Your task to perform on an android device: check out phone information Image 0: 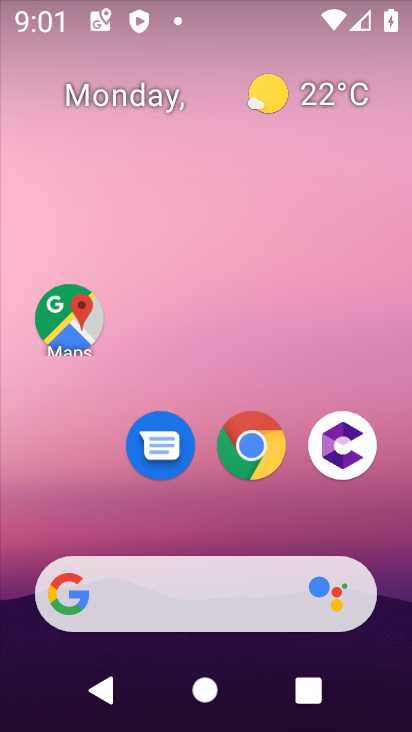
Step 0: drag from (288, 368) to (289, 28)
Your task to perform on an android device: check out phone information Image 1: 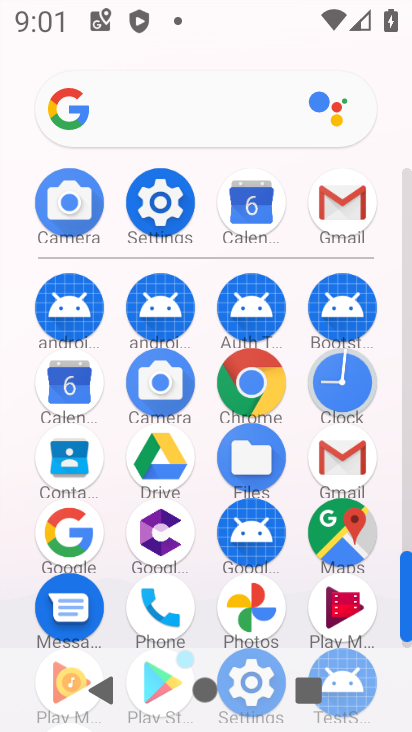
Step 1: click (170, 209)
Your task to perform on an android device: check out phone information Image 2: 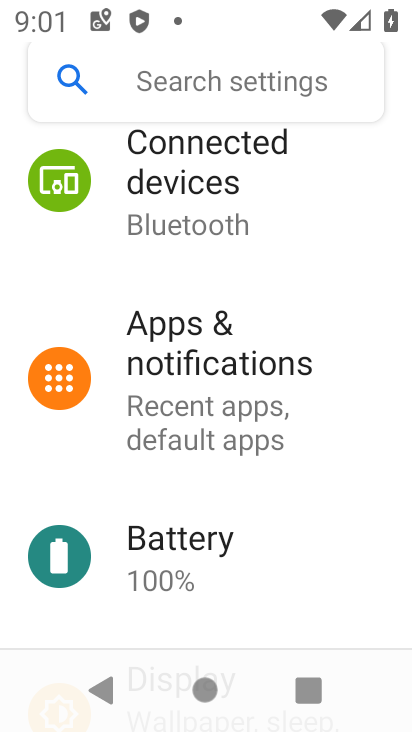
Step 2: drag from (50, 616) to (120, 125)
Your task to perform on an android device: check out phone information Image 3: 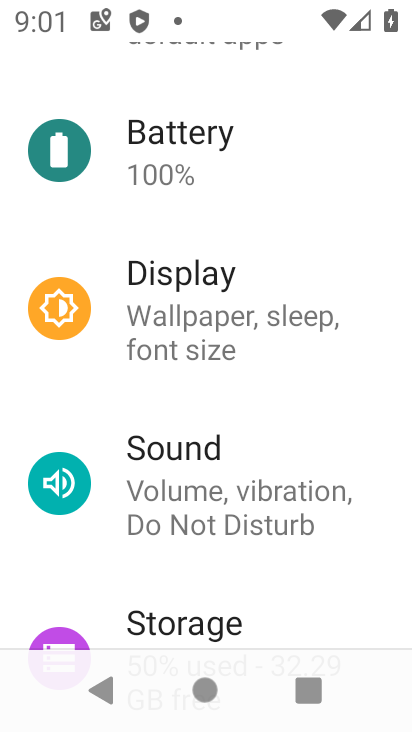
Step 3: drag from (55, 588) to (80, 73)
Your task to perform on an android device: check out phone information Image 4: 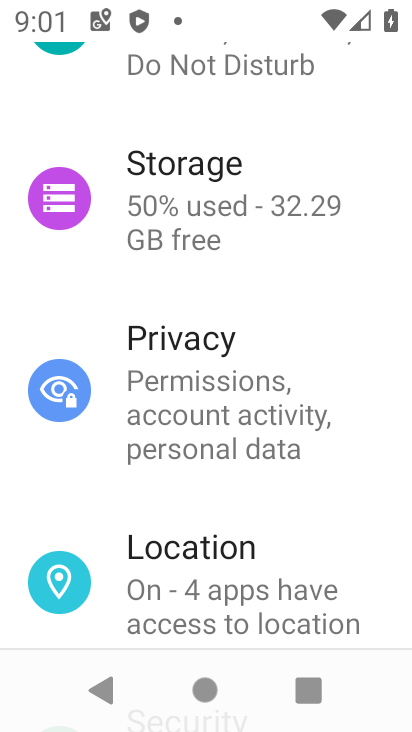
Step 4: drag from (25, 625) to (45, 130)
Your task to perform on an android device: check out phone information Image 5: 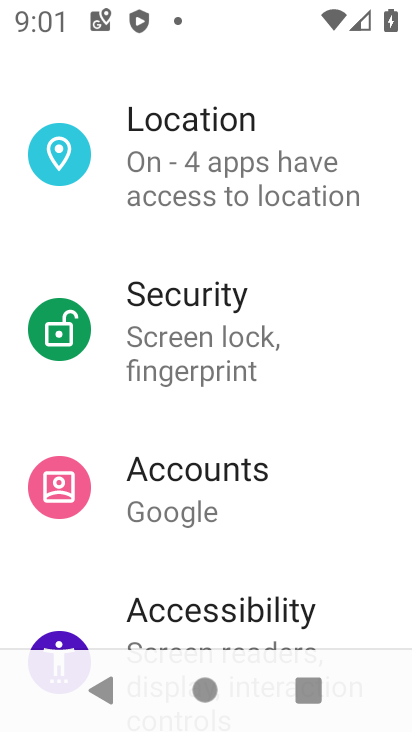
Step 5: drag from (55, 595) to (68, 155)
Your task to perform on an android device: check out phone information Image 6: 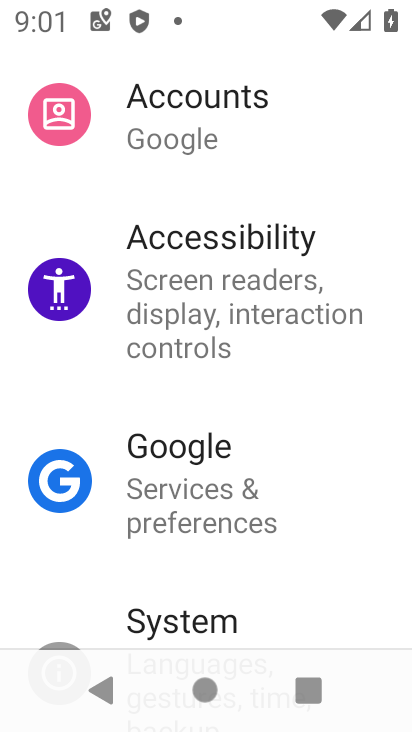
Step 6: drag from (84, 82) to (239, 4)
Your task to perform on an android device: check out phone information Image 7: 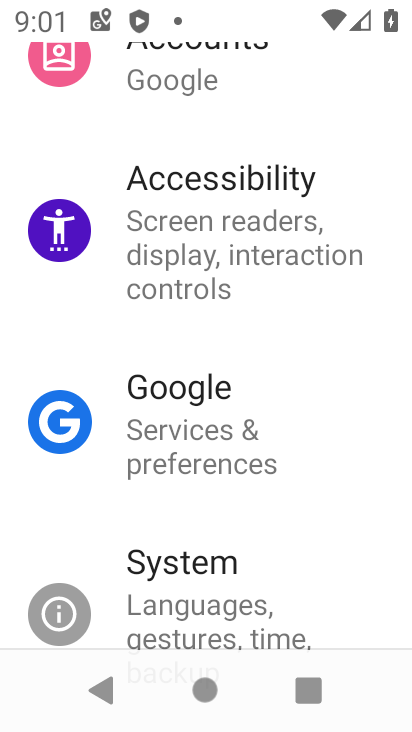
Step 7: drag from (46, 518) to (155, 70)
Your task to perform on an android device: check out phone information Image 8: 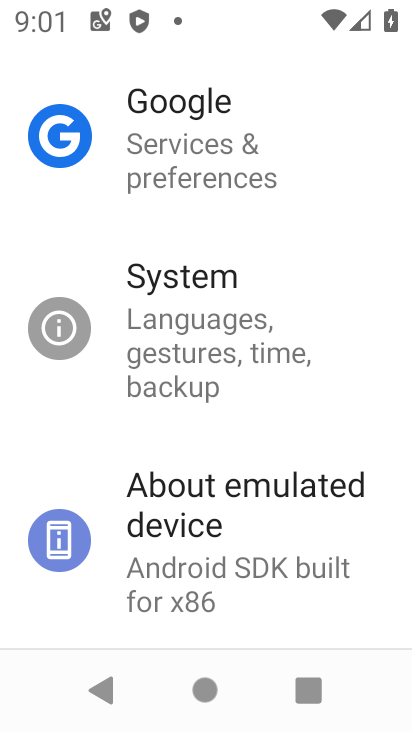
Step 8: click (219, 526)
Your task to perform on an android device: check out phone information Image 9: 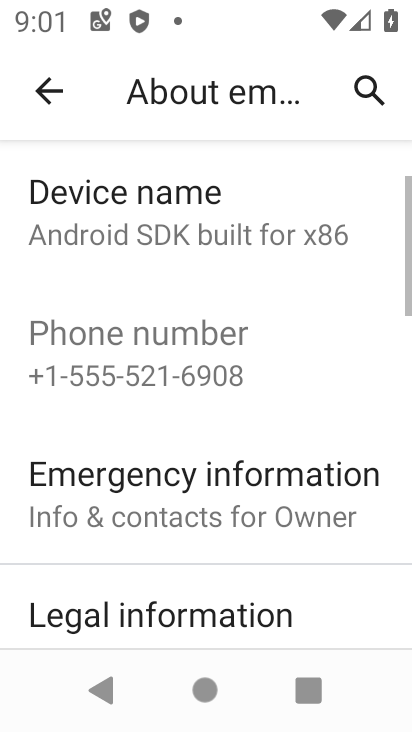
Step 9: task complete